Your task to perform on an android device: add a label to a message in the gmail app Image 0: 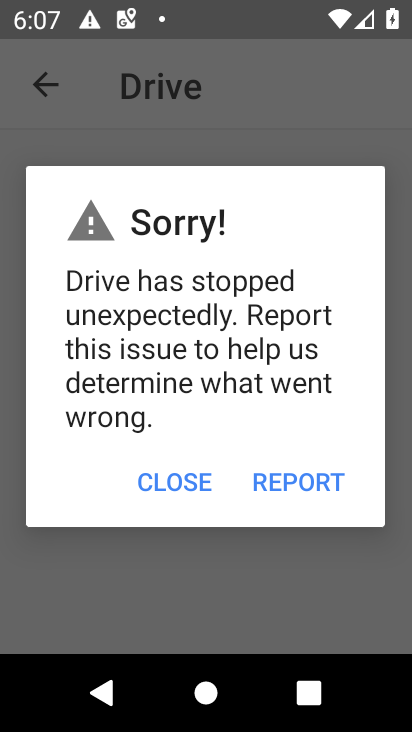
Step 0: press home button
Your task to perform on an android device: add a label to a message in the gmail app Image 1: 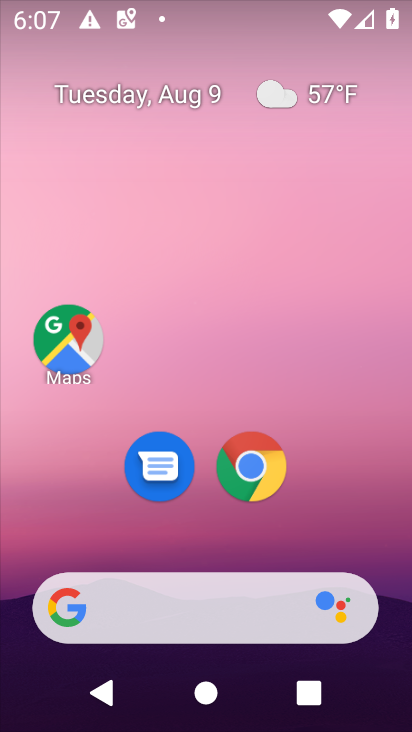
Step 1: drag from (209, 440) to (279, 59)
Your task to perform on an android device: add a label to a message in the gmail app Image 2: 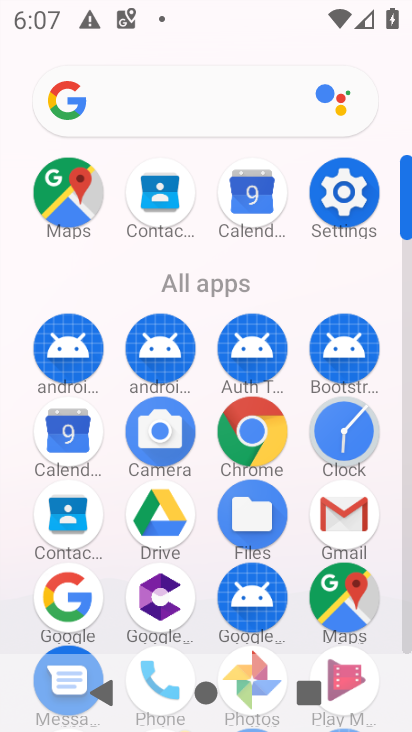
Step 2: drag from (205, 533) to (206, 306)
Your task to perform on an android device: add a label to a message in the gmail app Image 3: 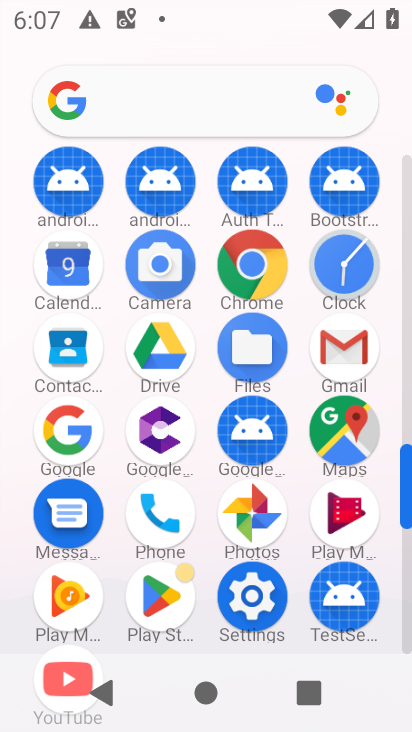
Step 3: click (351, 351)
Your task to perform on an android device: add a label to a message in the gmail app Image 4: 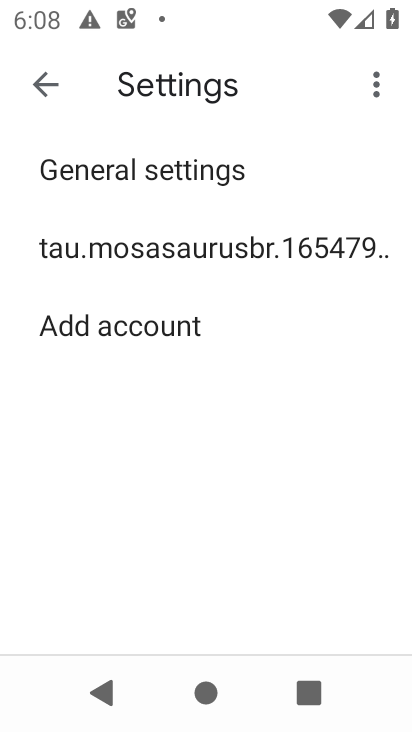
Step 4: click (48, 88)
Your task to perform on an android device: add a label to a message in the gmail app Image 5: 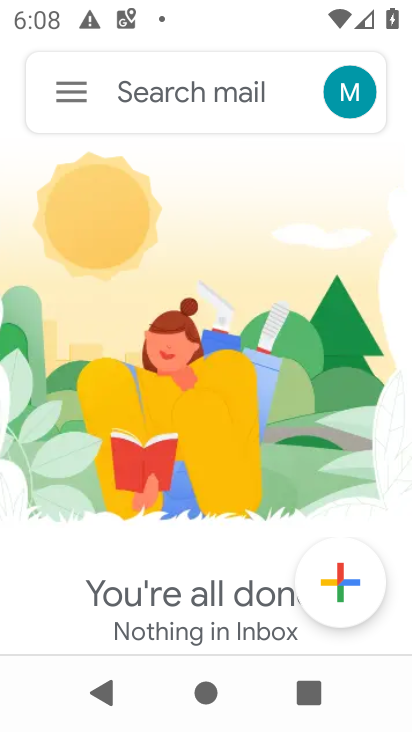
Step 5: click (72, 88)
Your task to perform on an android device: add a label to a message in the gmail app Image 6: 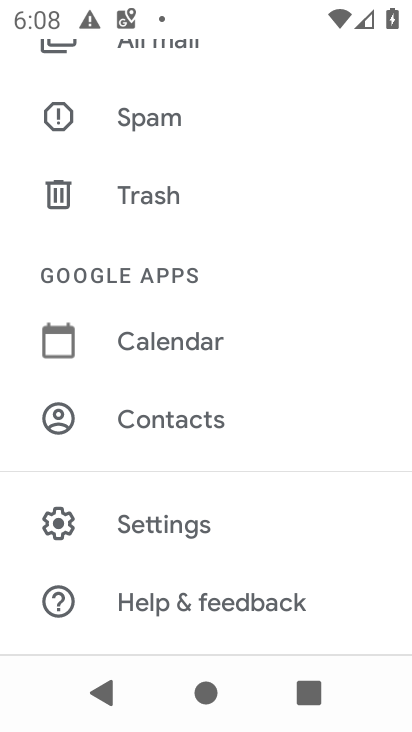
Step 6: click (177, 44)
Your task to perform on an android device: add a label to a message in the gmail app Image 7: 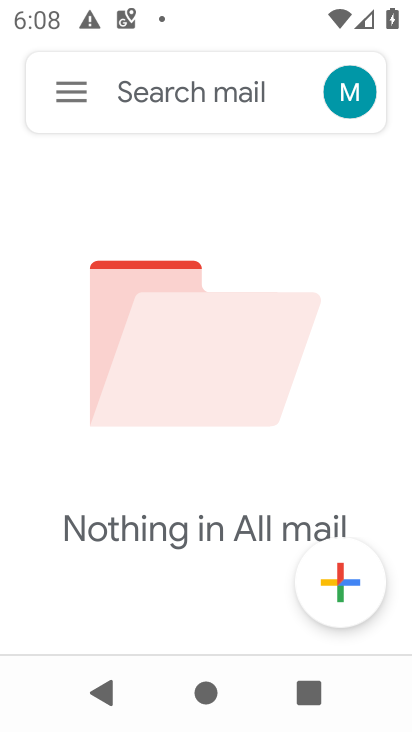
Step 7: task complete